Your task to perform on an android device: Open Reddit.com Image 0: 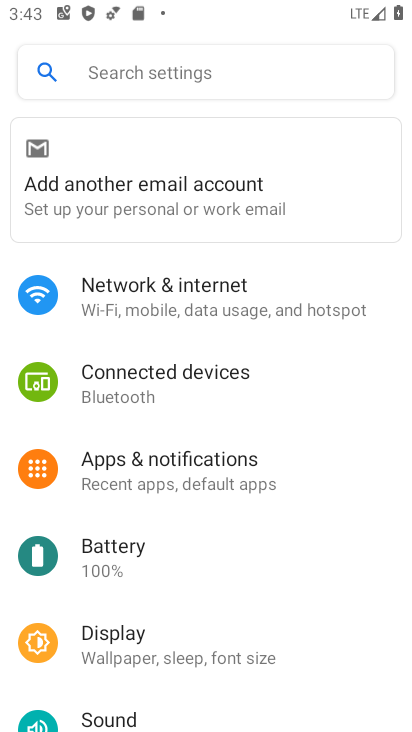
Step 0: press home button
Your task to perform on an android device: Open Reddit.com Image 1: 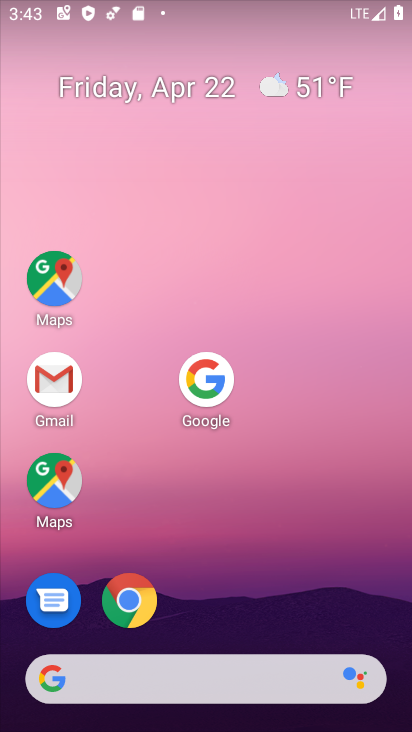
Step 1: drag from (317, 625) to (202, 100)
Your task to perform on an android device: Open Reddit.com Image 2: 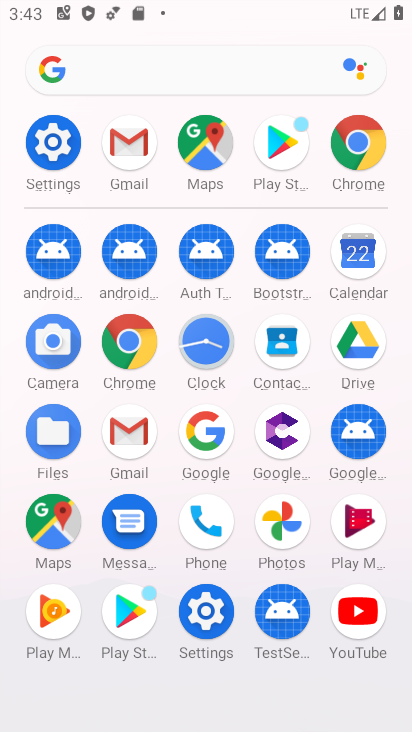
Step 2: click (128, 346)
Your task to perform on an android device: Open Reddit.com Image 3: 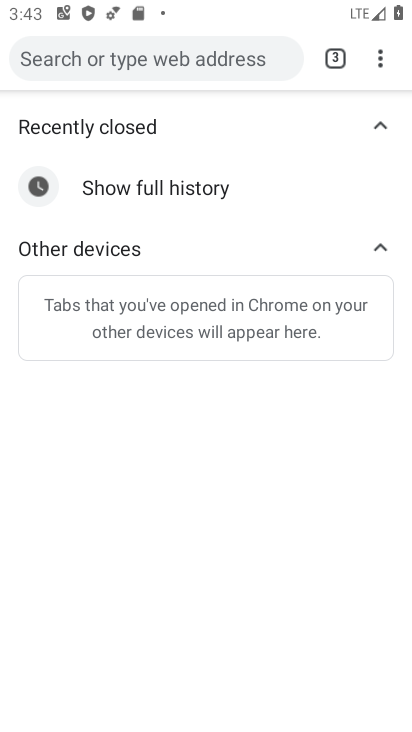
Step 3: click (157, 50)
Your task to perform on an android device: Open Reddit.com Image 4: 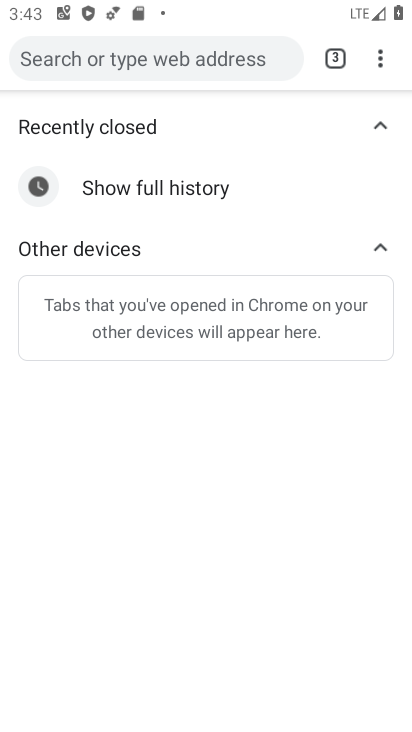
Step 4: click (157, 50)
Your task to perform on an android device: Open Reddit.com Image 5: 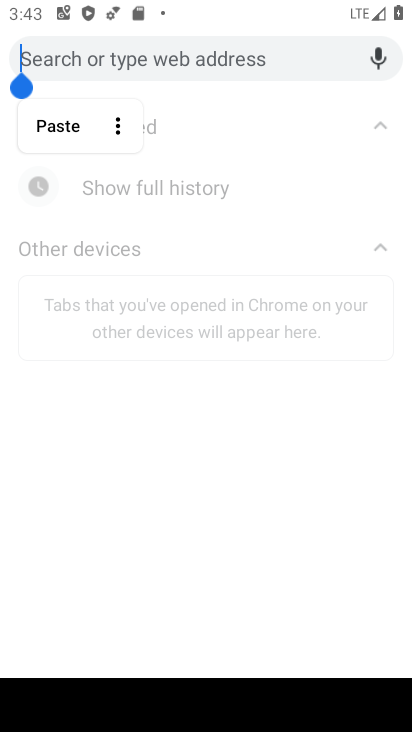
Step 5: click (115, 43)
Your task to perform on an android device: Open Reddit.com Image 6: 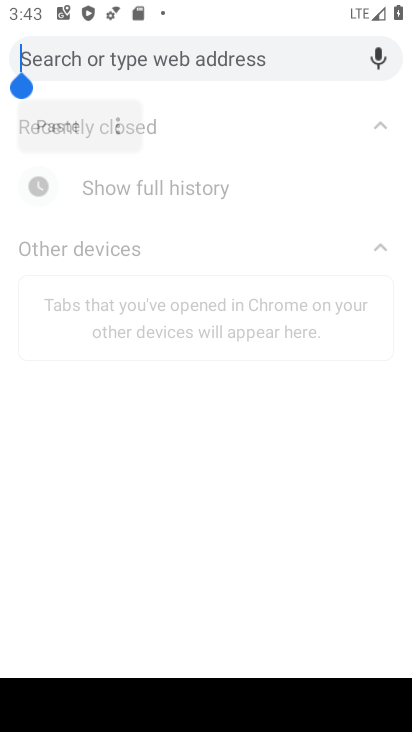
Step 6: click (113, 51)
Your task to perform on an android device: Open Reddit.com Image 7: 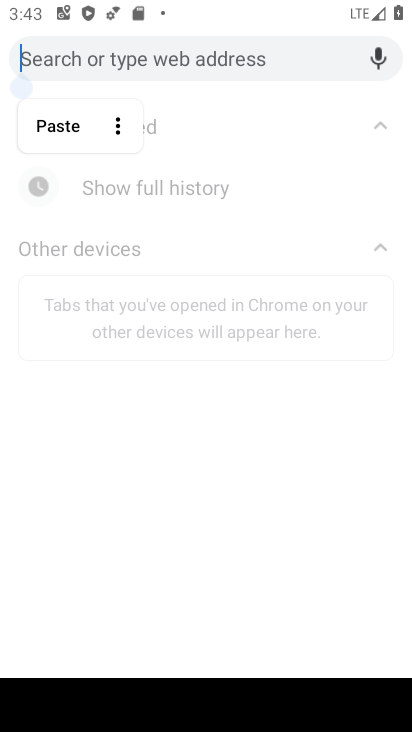
Step 7: click (113, 52)
Your task to perform on an android device: Open Reddit.com Image 8: 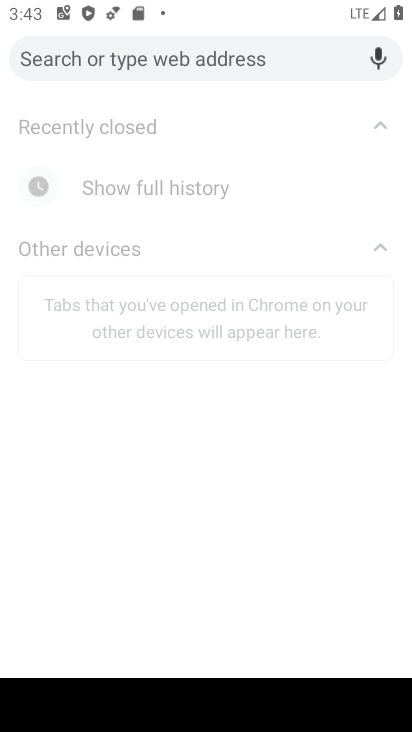
Step 8: click (112, 63)
Your task to perform on an android device: Open Reddit.com Image 9: 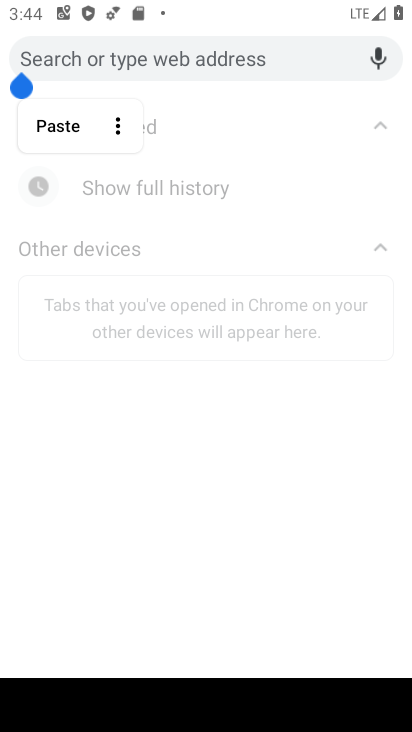
Step 9: click (55, 53)
Your task to perform on an android device: Open Reddit.com Image 10: 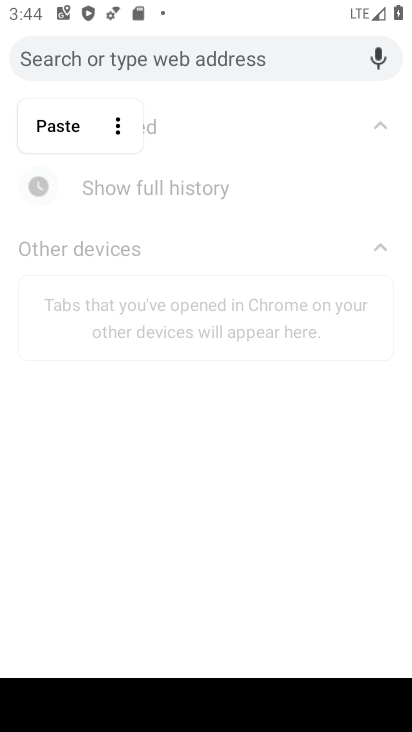
Step 10: click (54, 53)
Your task to perform on an android device: Open Reddit.com Image 11: 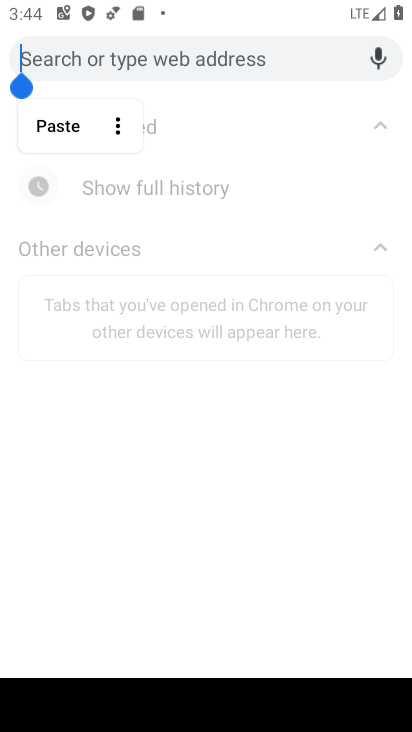
Step 11: click (54, 53)
Your task to perform on an android device: Open Reddit.com Image 12: 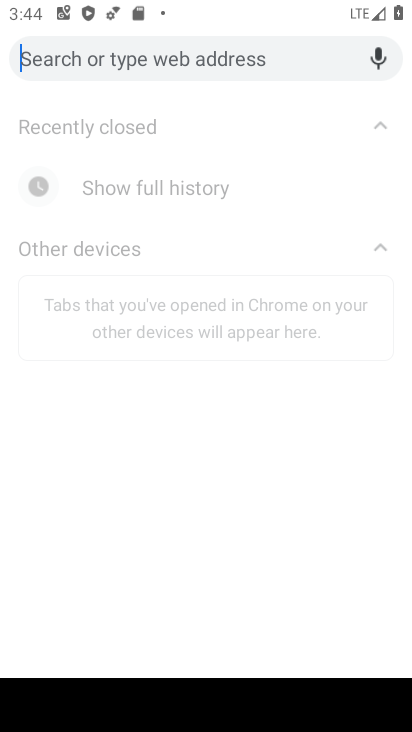
Step 12: click (53, 53)
Your task to perform on an android device: Open Reddit.com Image 13: 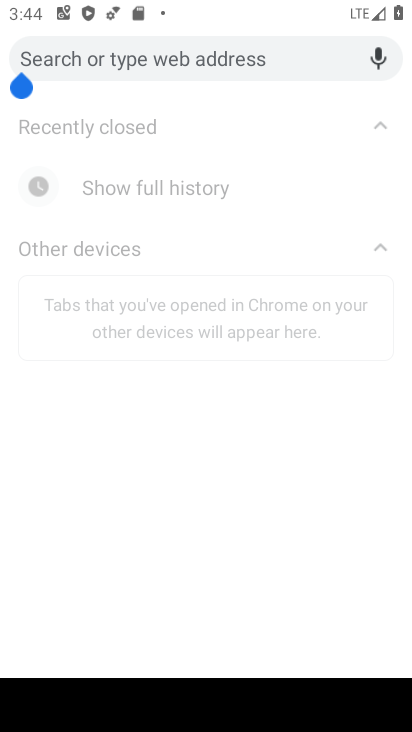
Step 13: click (53, 53)
Your task to perform on an android device: Open Reddit.com Image 14: 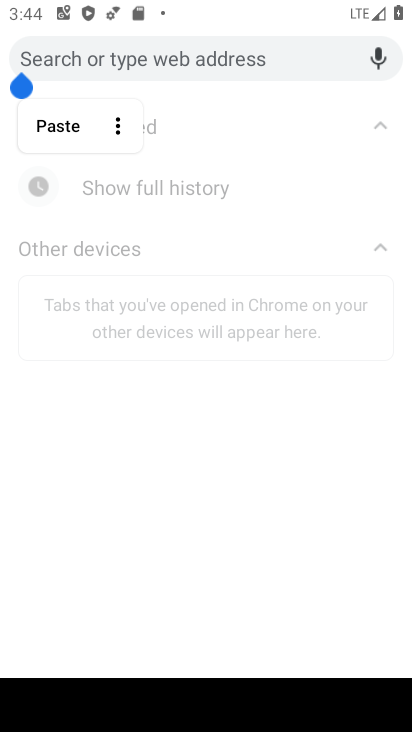
Step 14: click (52, 54)
Your task to perform on an android device: Open Reddit.com Image 15: 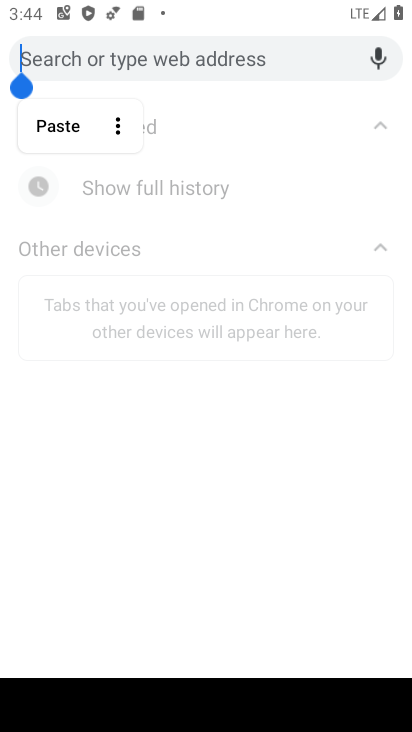
Step 15: click (52, 55)
Your task to perform on an android device: Open Reddit.com Image 16: 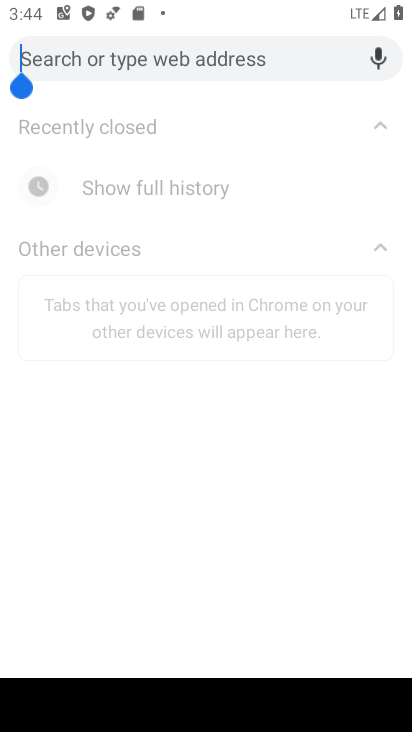
Step 16: click (49, 58)
Your task to perform on an android device: Open Reddit.com Image 17: 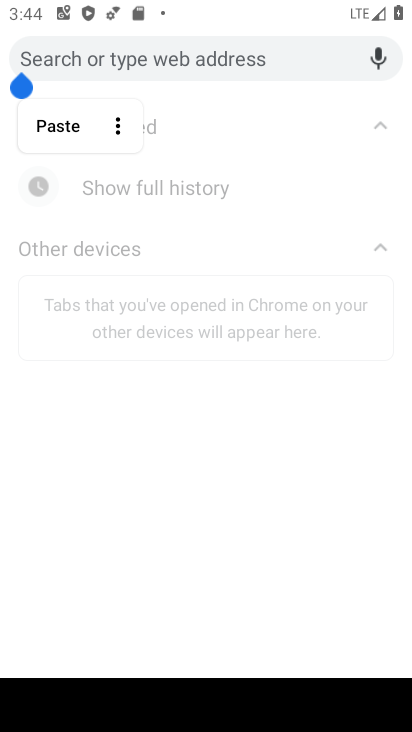
Step 17: click (49, 58)
Your task to perform on an android device: Open Reddit.com Image 18: 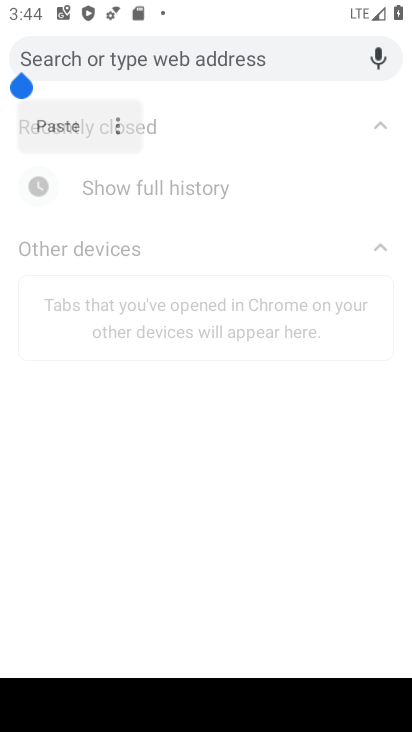
Step 18: click (46, 57)
Your task to perform on an android device: Open Reddit.com Image 19: 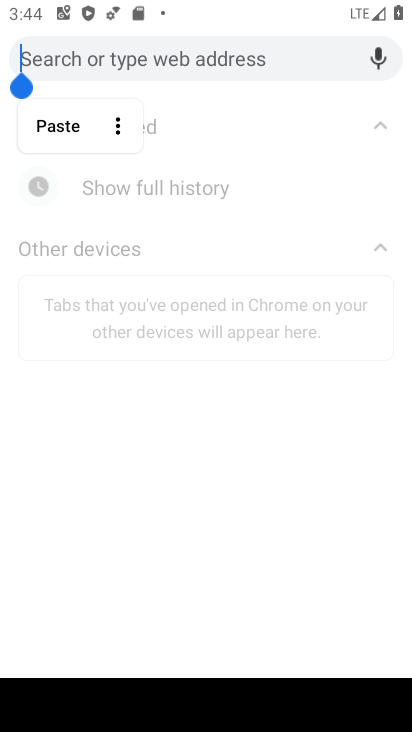
Step 19: press home button
Your task to perform on an android device: Open Reddit.com Image 20: 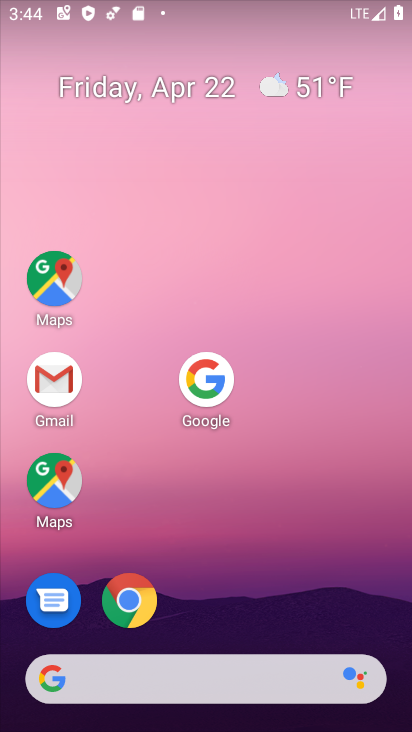
Step 20: drag from (333, 632) to (212, 117)
Your task to perform on an android device: Open Reddit.com Image 21: 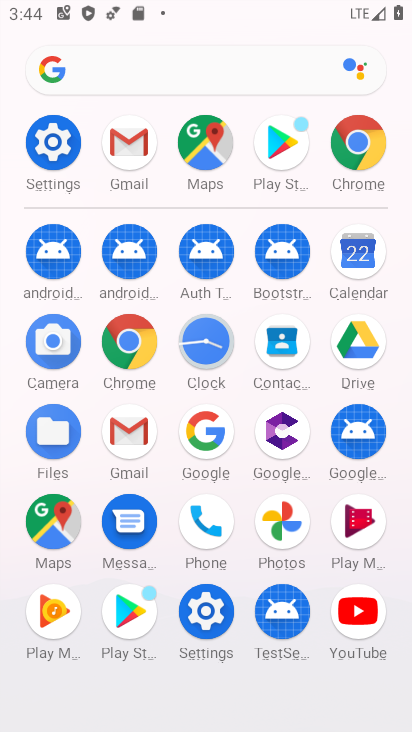
Step 21: drag from (272, 480) to (171, 124)
Your task to perform on an android device: Open Reddit.com Image 22: 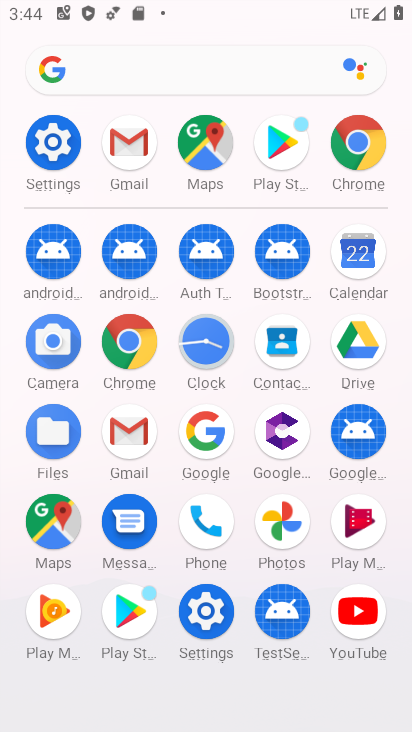
Step 22: click (115, 346)
Your task to perform on an android device: Open Reddit.com Image 23: 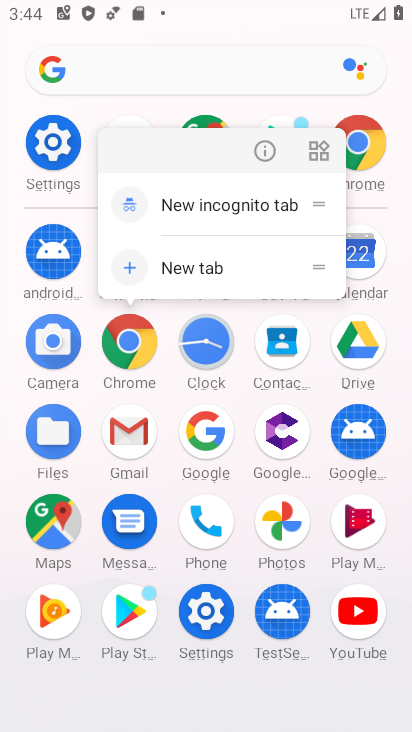
Step 23: click (125, 344)
Your task to perform on an android device: Open Reddit.com Image 24: 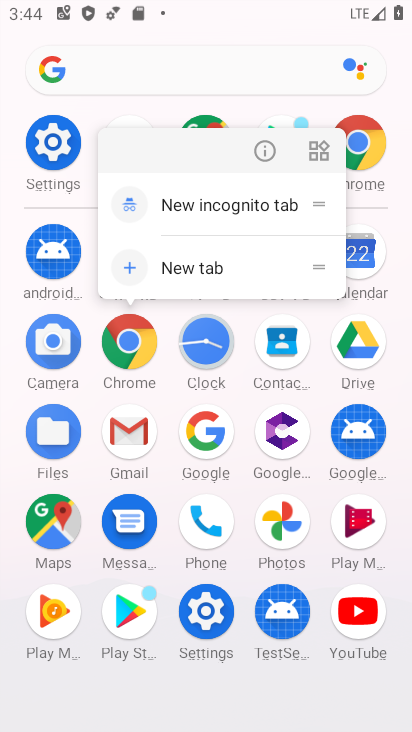
Step 24: click (125, 343)
Your task to perform on an android device: Open Reddit.com Image 25: 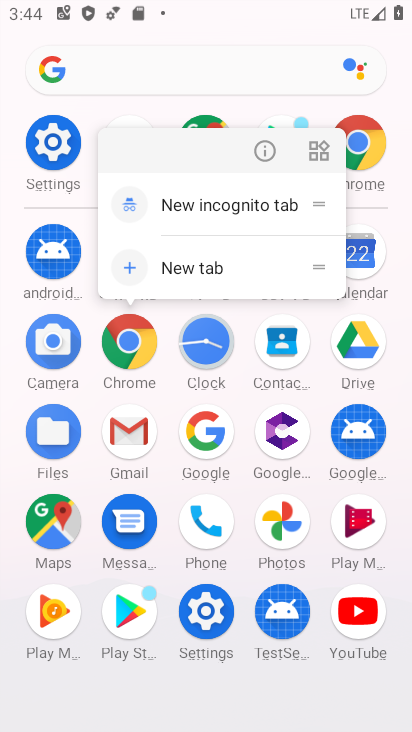
Step 25: click (125, 342)
Your task to perform on an android device: Open Reddit.com Image 26: 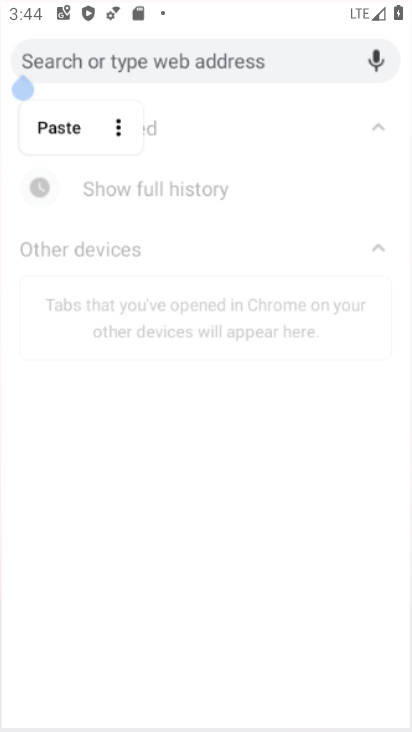
Step 26: click (125, 342)
Your task to perform on an android device: Open Reddit.com Image 27: 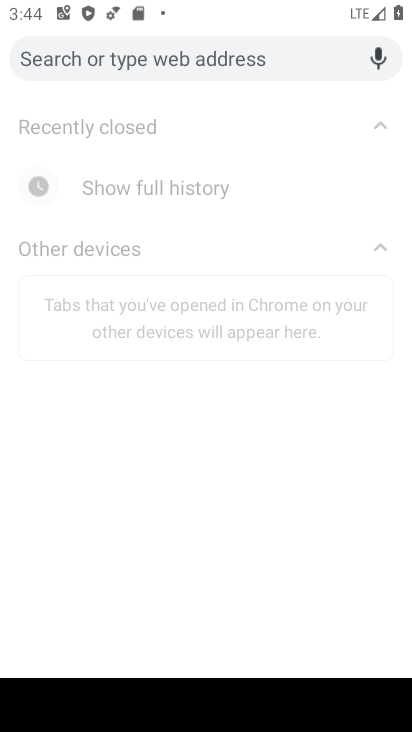
Step 27: click (122, 60)
Your task to perform on an android device: Open Reddit.com Image 28: 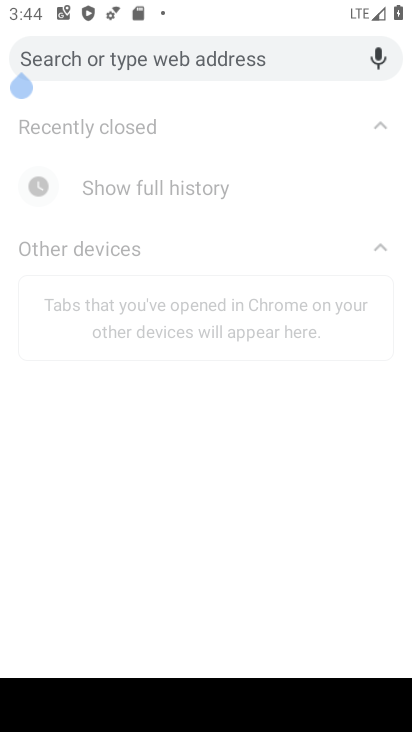
Step 28: click (116, 55)
Your task to perform on an android device: Open Reddit.com Image 29: 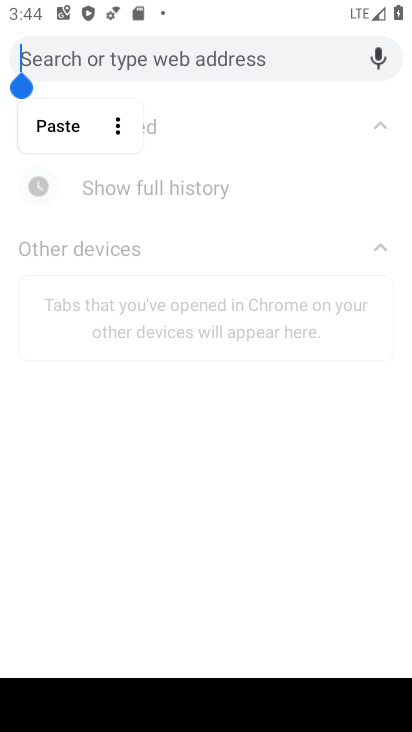
Step 29: click (116, 57)
Your task to perform on an android device: Open Reddit.com Image 30: 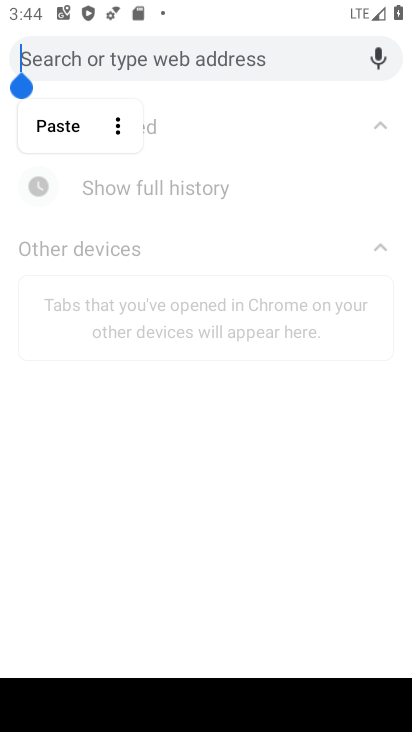
Step 30: click (110, 62)
Your task to perform on an android device: Open Reddit.com Image 31: 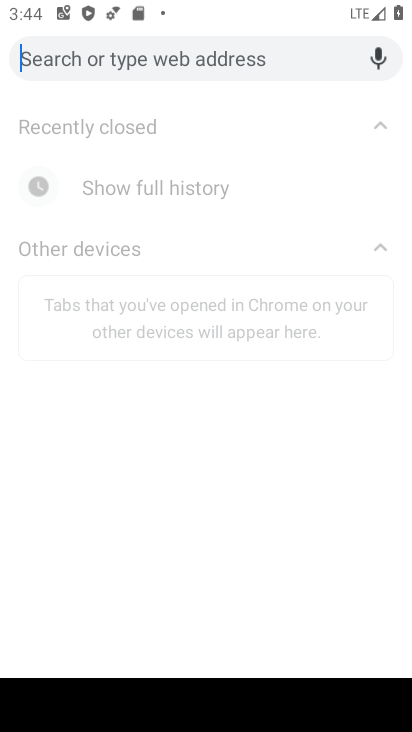
Step 31: click (120, 65)
Your task to perform on an android device: Open Reddit.com Image 32: 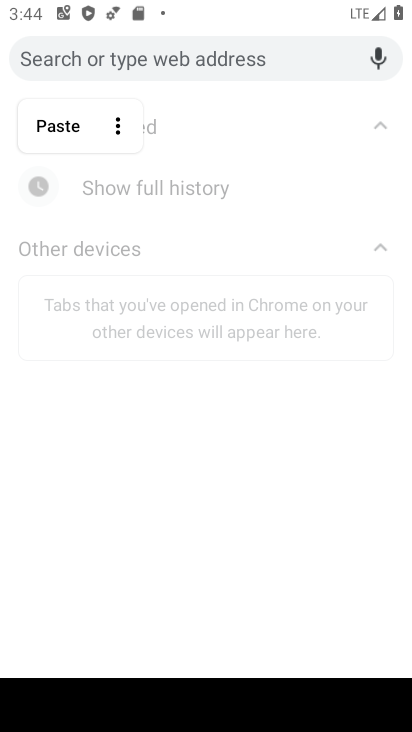
Step 32: type "www.reddit.com"
Your task to perform on an android device: Open Reddit.com Image 33: 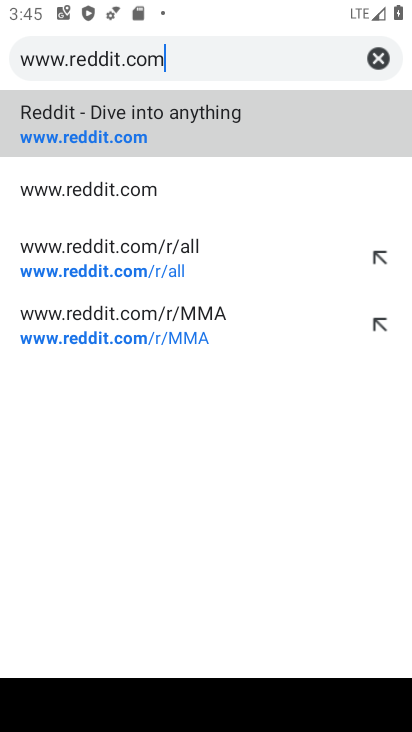
Step 33: click (94, 129)
Your task to perform on an android device: Open Reddit.com Image 34: 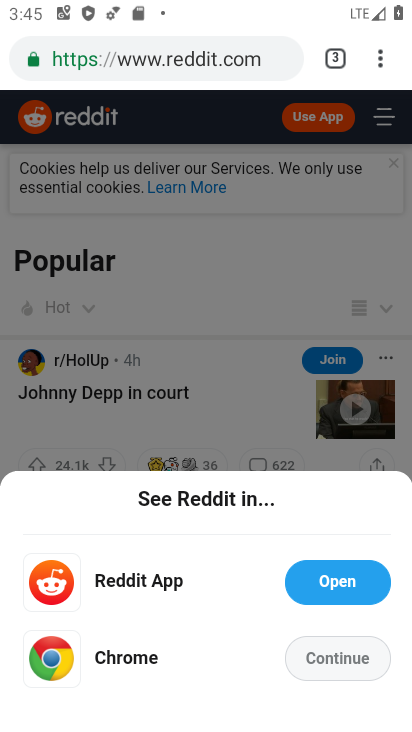
Step 34: task complete